Your task to perform on an android device: read, delete, or share a saved page in the chrome app Image 0: 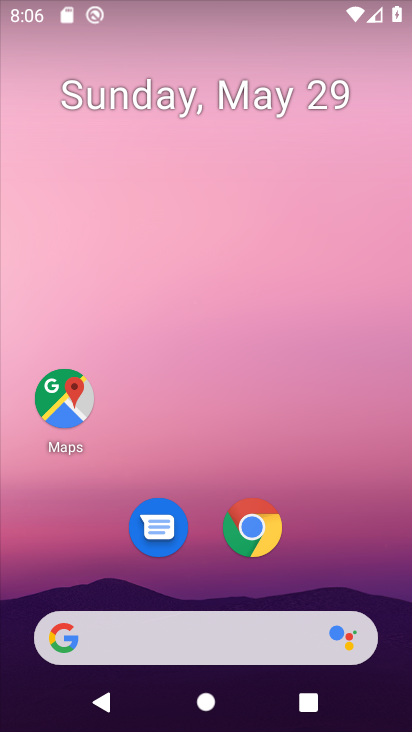
Step 0: press home button
Your task to perform on an android device: read, delete, or share a saved page in the chrome app Image 1: 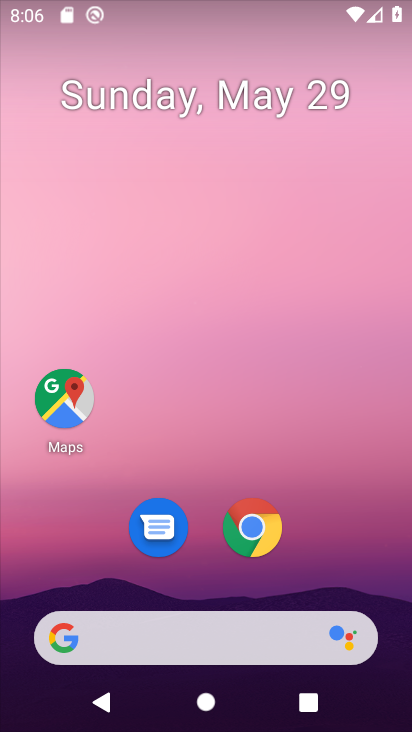
Step 1: click (251, 524)
Your task to perform on an android device: read, delete, or share a saved page in the chrome app Image 2: 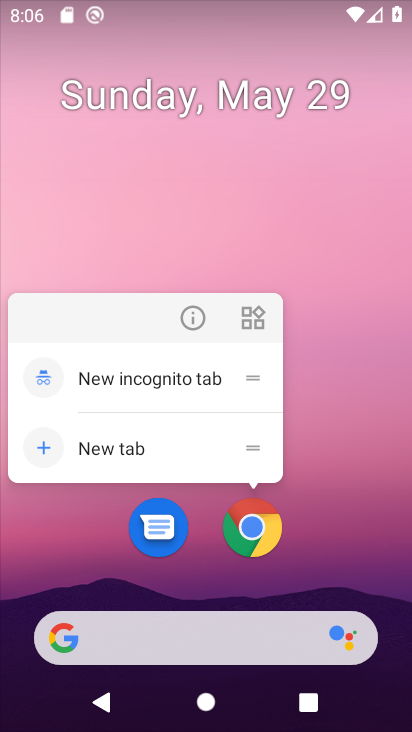
Step 2: click (251, 524)
Your task to perform on an android device: read, delete, or share a saved page in the chrome app Image 3: 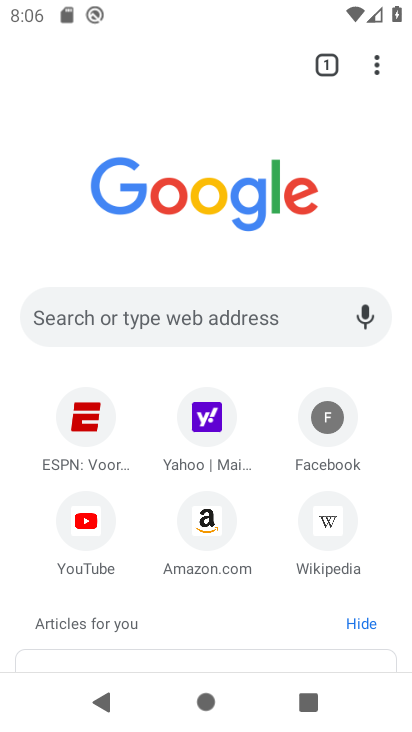
Step 3: click (376, 63)
Your task to perform on an android device: read, delete, or share a saved page in the chrome app Image 4: 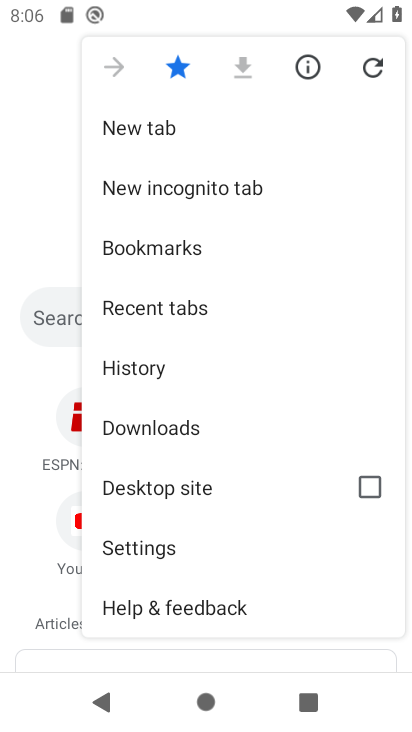
Step 4: click (213, 422)
Your task to perform on an android device: read, delete, or share a saved page in the chrome app Image 5: 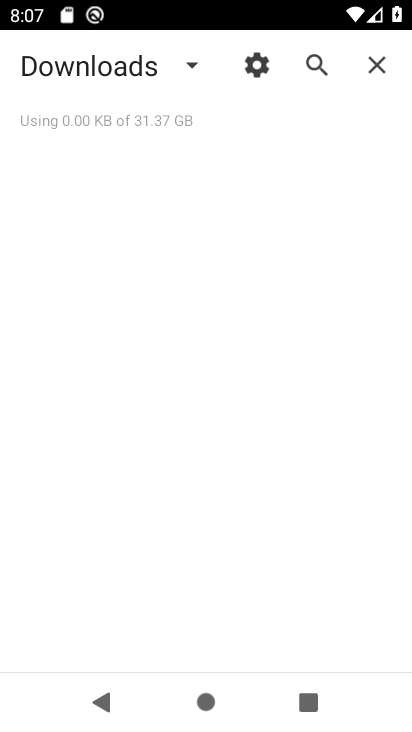
Step 5: task complete